Your task to perform on an android device: remove spam from my inbox in the gmail app Image 0: 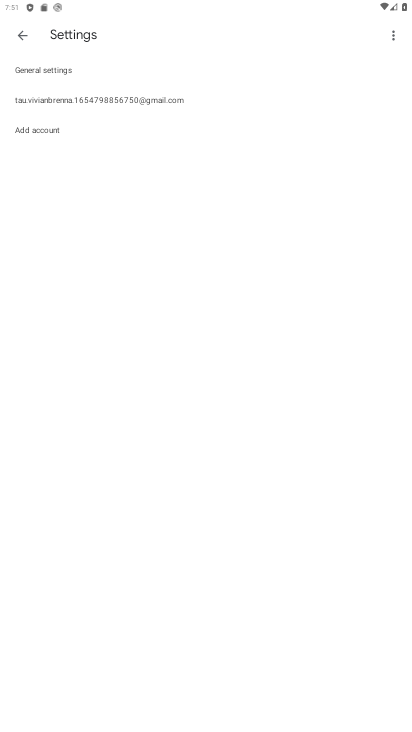
Step 0: press home button
Your task to perform on an android device: remove spam from my inbox in the gmail app Image 1: 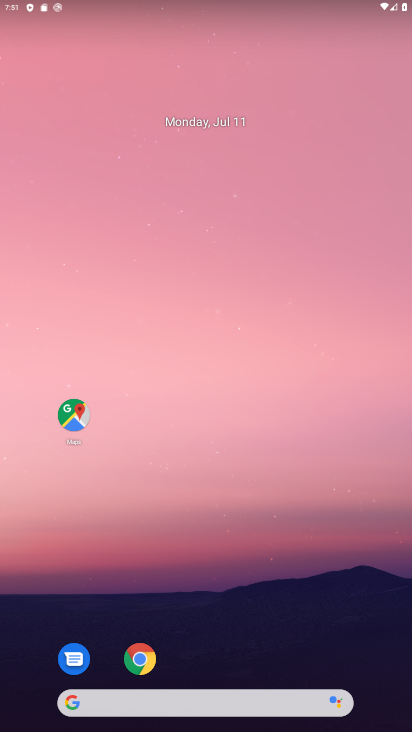
Step 1: drag from (42, 657) to (210, 118)
Your task to perform on an android device: remove spam from my inbox in the gmail app Image 2: 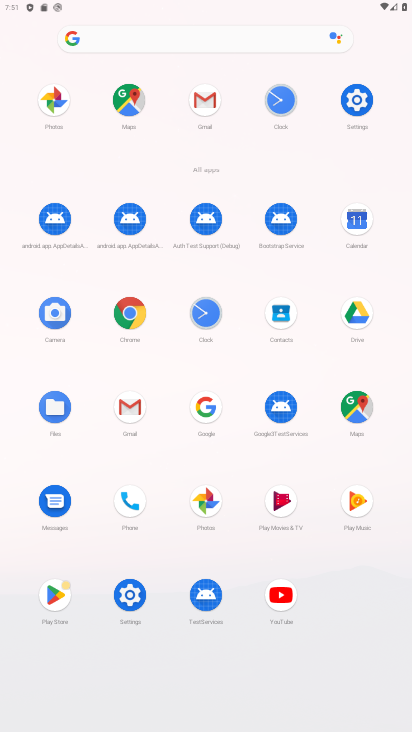
Step 2: click (122, 419)
Your task to perform on an android device: remove spam from my inbox in the gmail app Image 3: 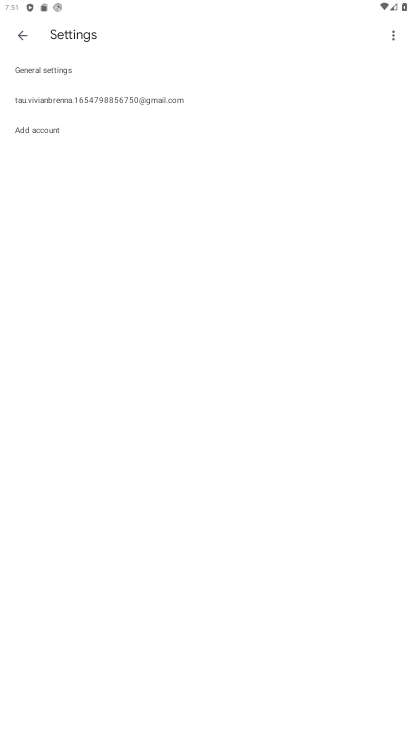
Step 3: click (24, 29)
Your task to perform on an android device: remove spam from my inbox in the gmail app Image 4: 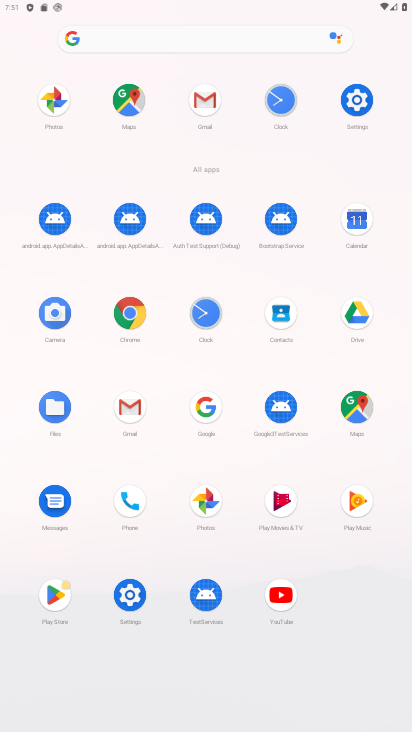
Step 4: click (124, 404)
Your task to perform on an android device: remove spam from my inbox in the gmail app Image 5: 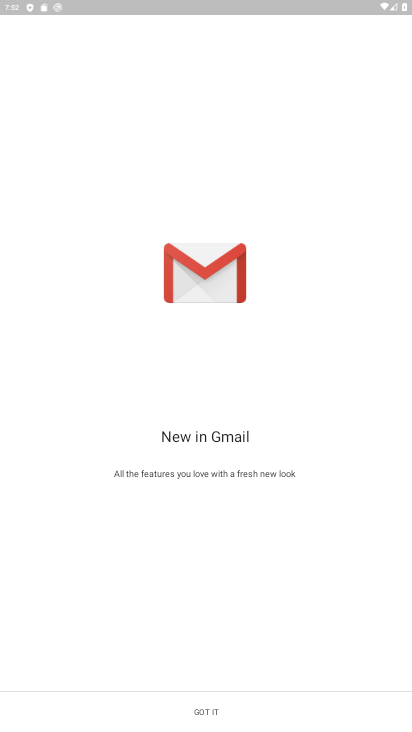
Step 5: click (219, 707)
Your task to perform on an android device: remove spam from my inbox in the gmail app Image 6: 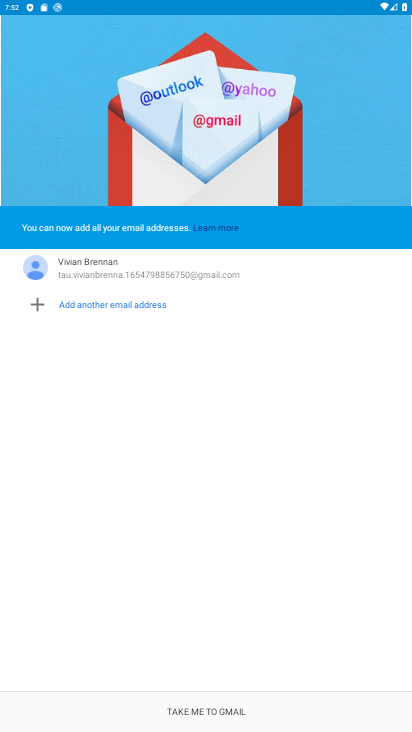
Step 6: click (211, 715)
Your task to perform on an android device: remove spam from my inbox in the gmail app Image 7: 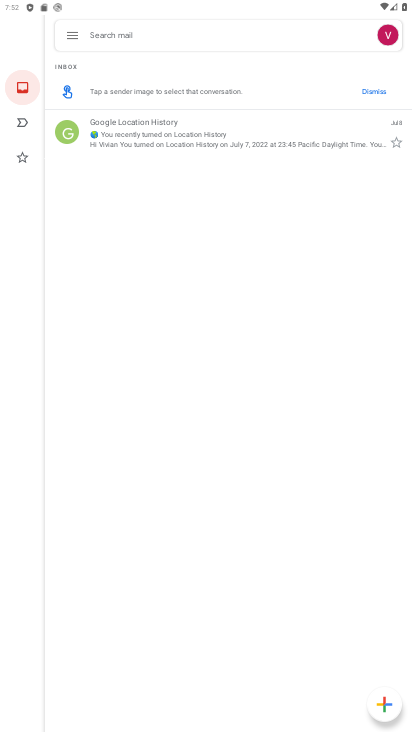
Step 7: click (73, 31)
Your task to perform on an android device: remove spam from my inbox in the gmail app Image 8: 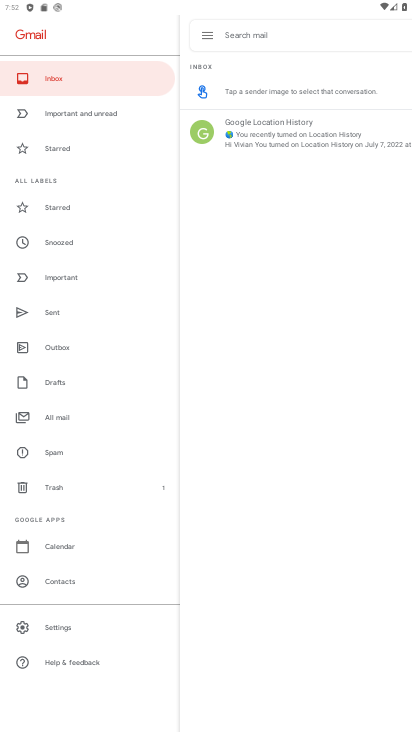
Step 8: click (65, 448)
Your task to perform on an android device: remove spam from my inbox in the gmail app Image 9: 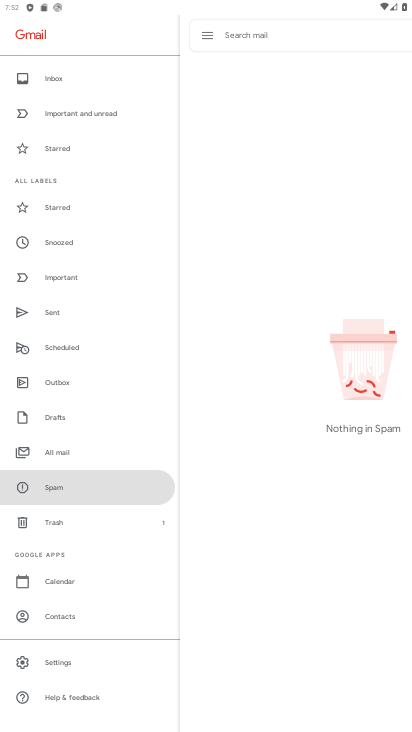
Step 9: task complete